Your task to perform on an android device: clear all cookies in the chrome app Image 0: 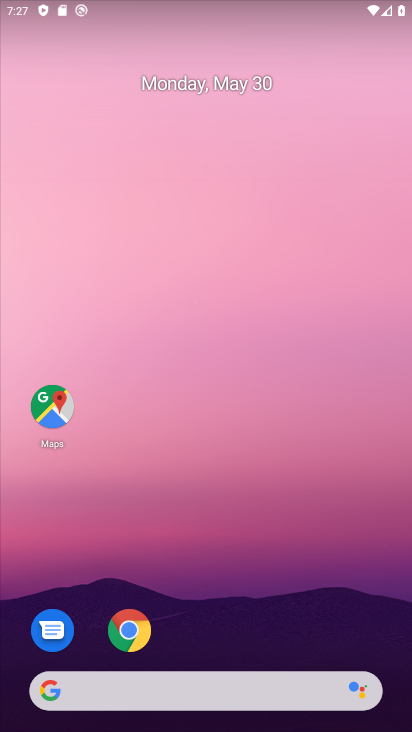
Step 0: click (129, 626)
Your task to perform on an android device: clear all cookies in the chrome app Image 1: 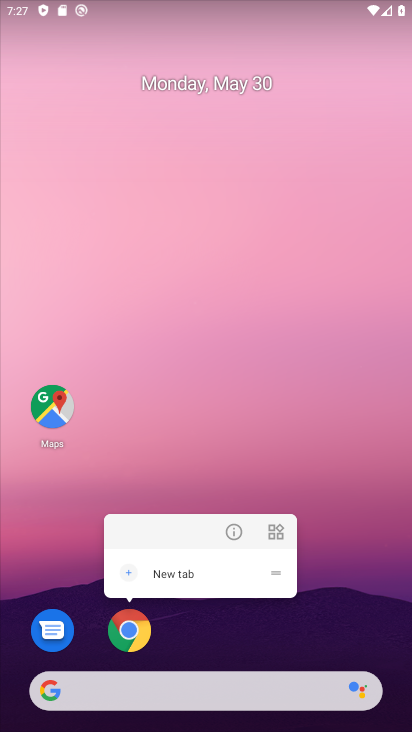
Step 1: click (132, 629)
Your task to perform on an android device: clear all cookies in the chrome app Image 2: 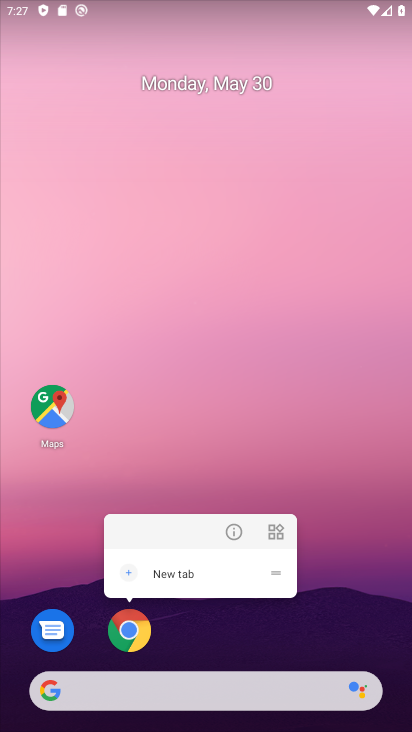
Step 2: click (128, 633)
Your task to perform on an android device: clear all cookies in the chrome app Image 3: 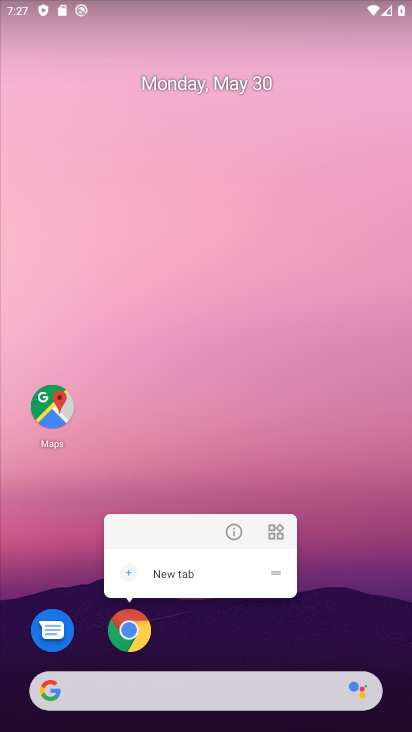
Step 3: click (128, 635)
Your task to perform on an android device: clear all cookies in the chrome app Image 4: 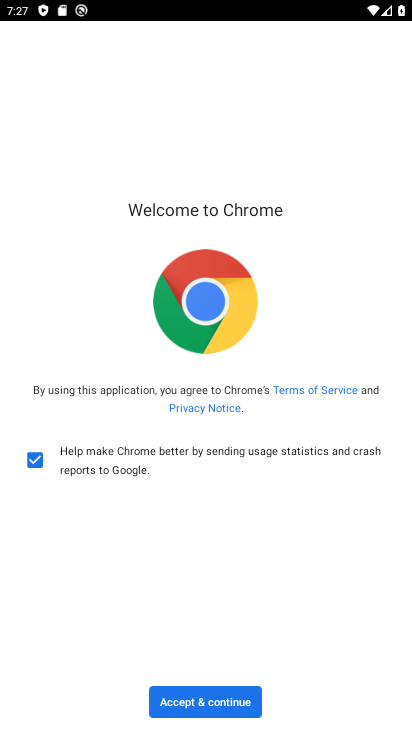
Step 4: click (218, 698)
Your task to perform on an android device: clear all cookies in the chrome app Image 5: 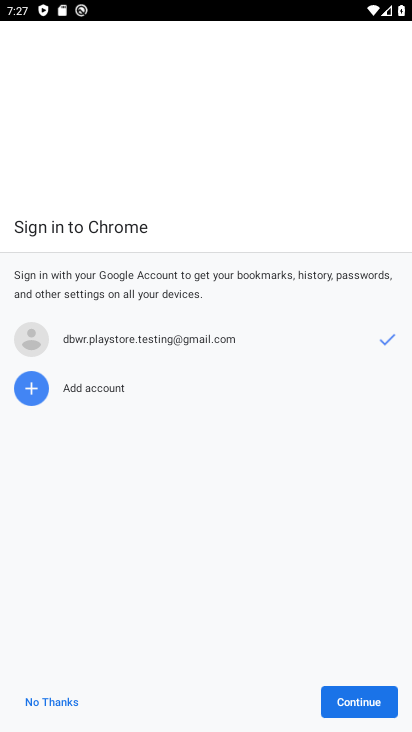
Step 5: click (360, 709)
Your task to perform on an android device: clear all cookies in the chrome app Image 6: 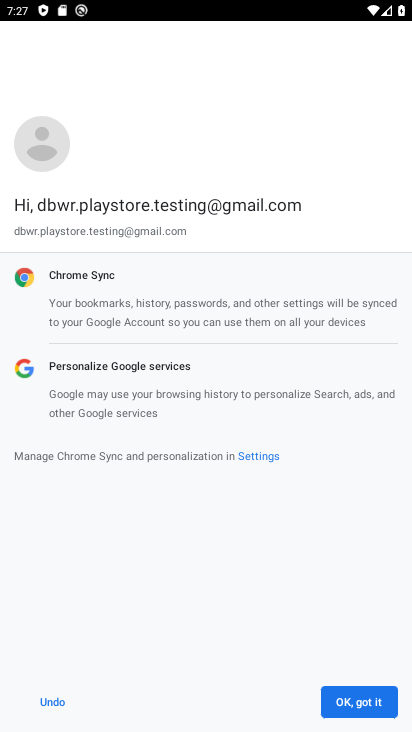
Step 6: click (360, 709)
Your task to perform on an android device: clear all cookies in the chrome app Image 7: 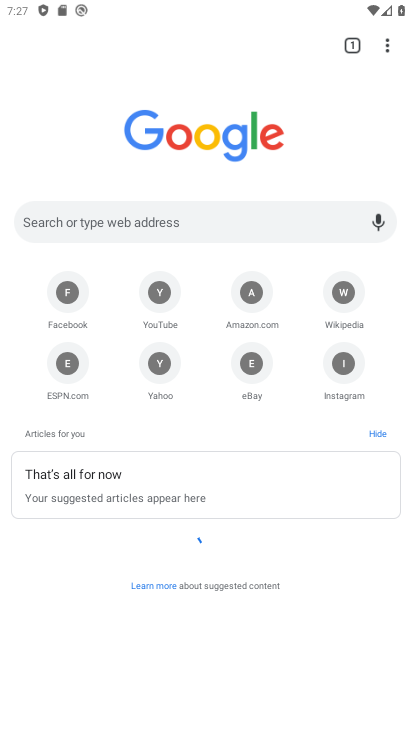
Step 7: drag from (392, 57) to (210, 385)
Your task to perform on an android device: clear all cookies in the chrome app Image 8: 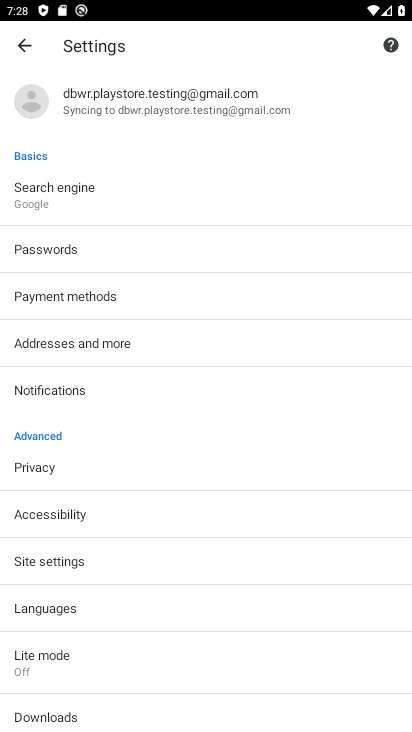
Step 8: click (23, 463)
Your task to perform on an android device: clear all cookies in the chrome app Image 9: 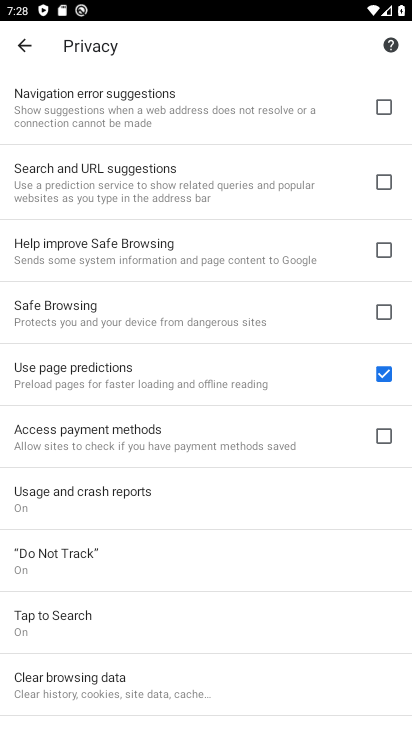
Step 9: drag from (235, 631) to (292, 202)
Your task to perform on an android device: clear all cookies in the chrome app Image 10: 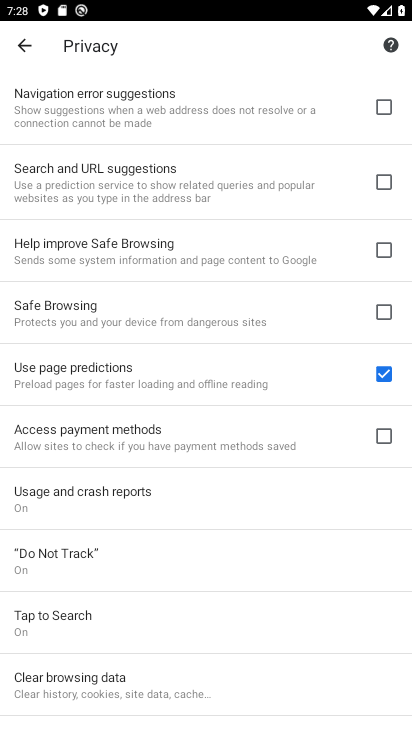
Step 10: click (94, 689)
Your task to perform on an android device: clear all cookies in the chrome app Image 11: 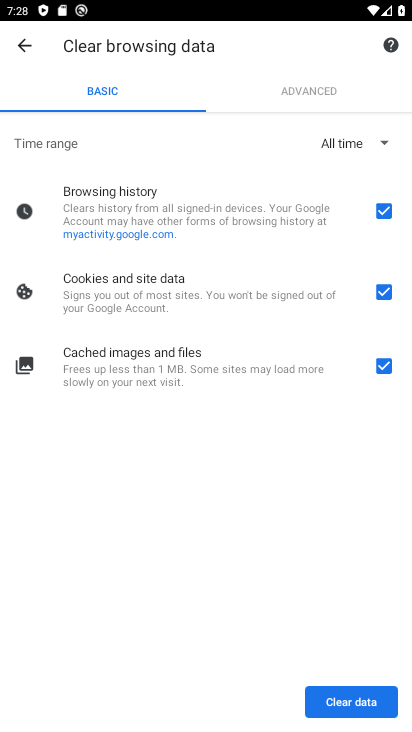
Step 11: click (377, 208)
Your task to perform on an android device: clear all cookies in the chrome app Image 12: 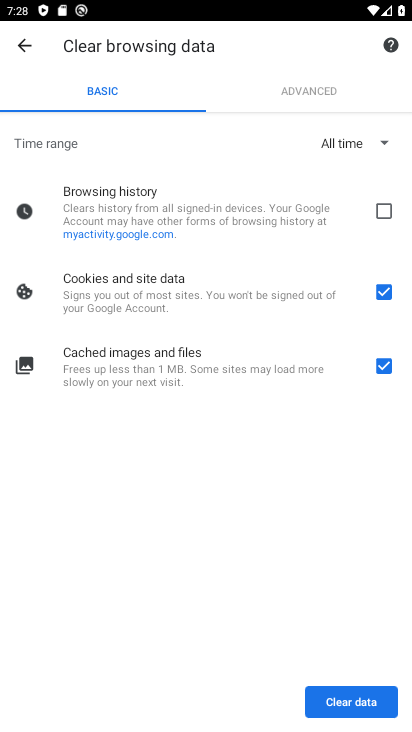
Step 12: click (391, 363)
Your task to perform on an android device: clear all cookies in the chrome app Image 13: 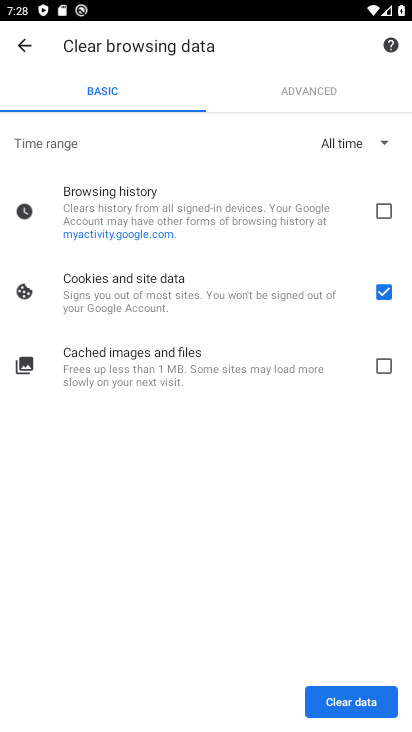
Step 13: click (344, 707)
Your task to perform on an android device: clear all cookies in the chrome app Image 14: 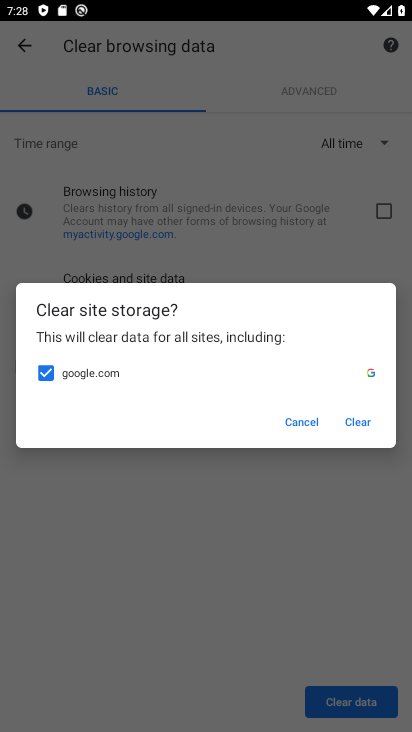
Step 14: click (353, 421)
Your task to perform on an android device: clear all cookies in the chrome app Image 15: 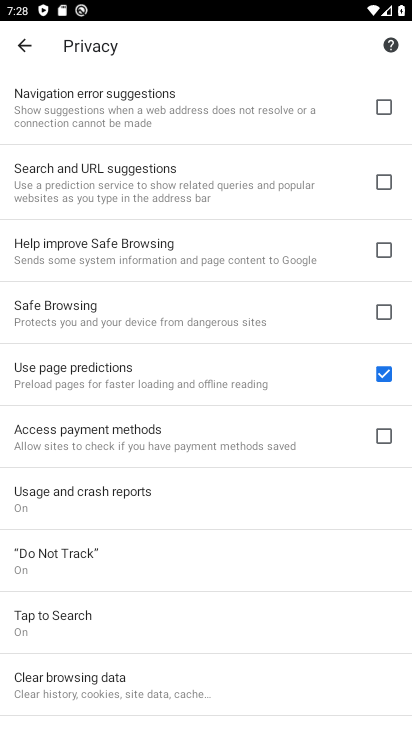
Step 15: task complete